Your task to perform on an android device: turn on location history Image 0: 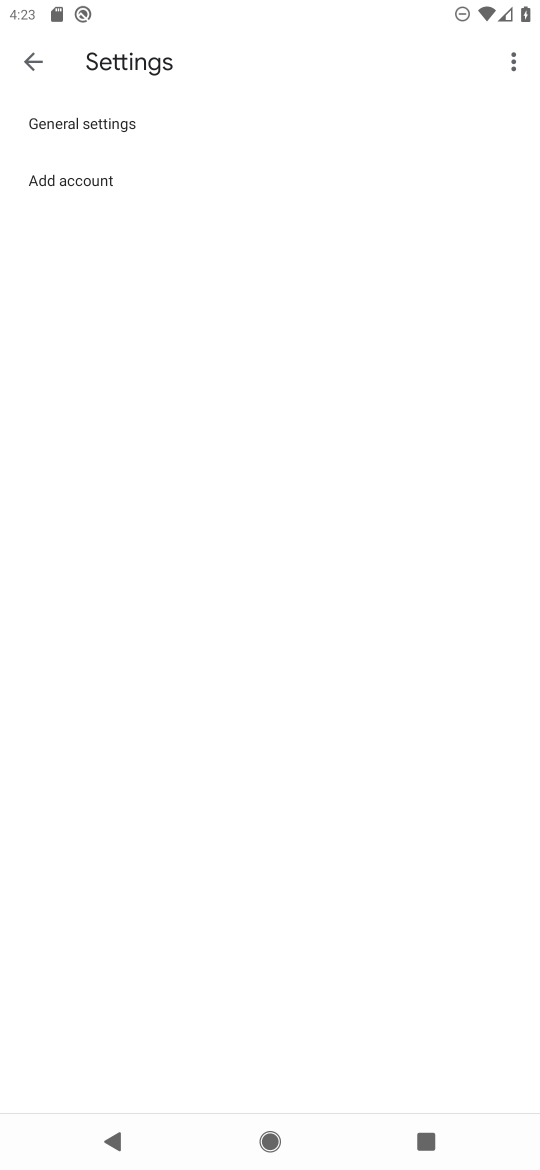
Step 0: press home button
Your task to perform on an android device: turn on location history Image 1: 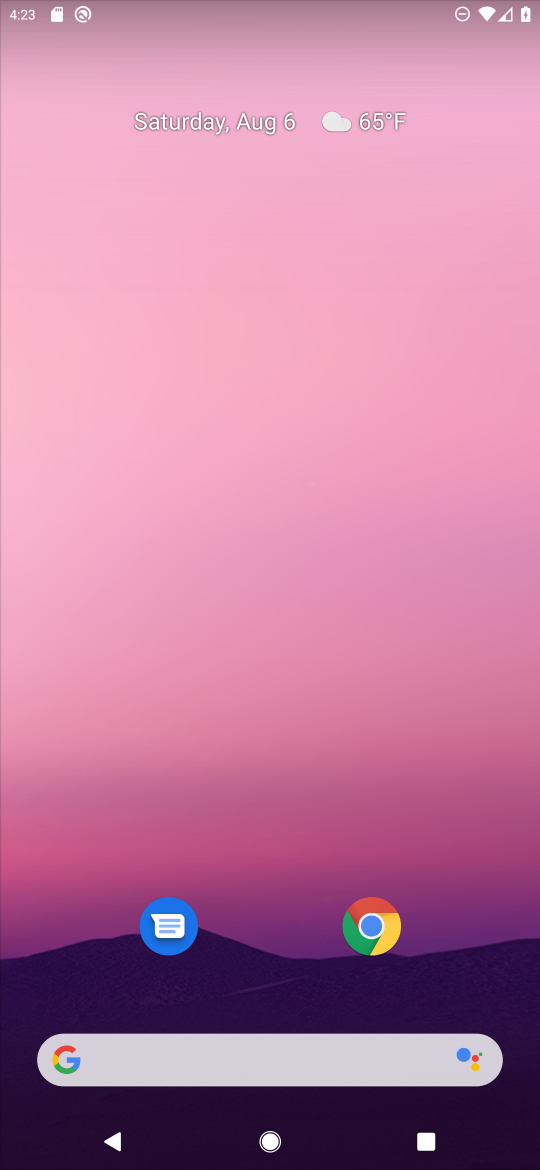
Step 1: drag from (289, 911) to (298, 337)
Your task to perform on an android device: turn on location history Image 2: 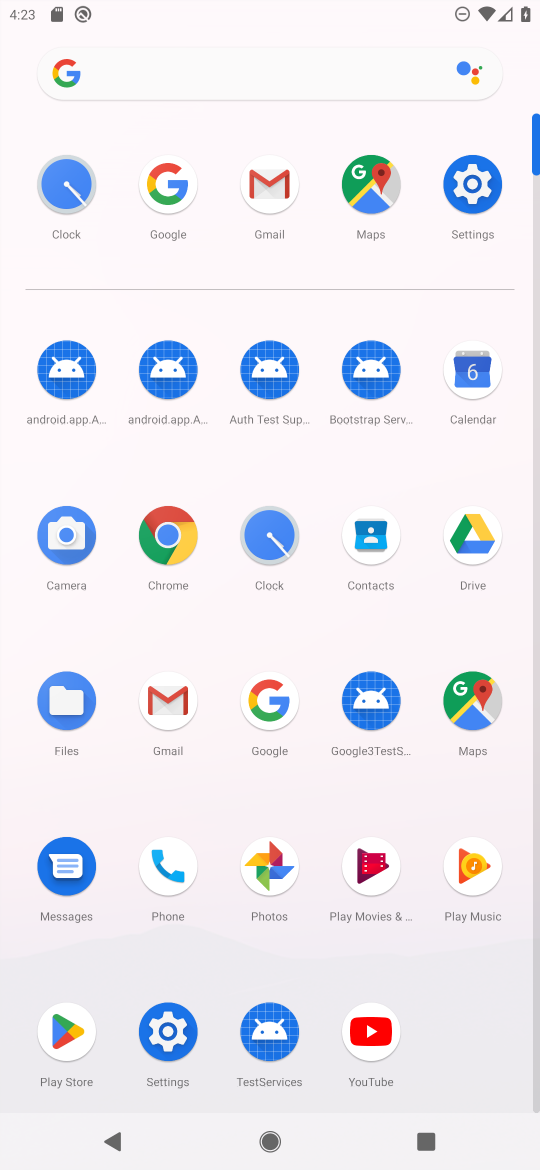
Step 2: click (450, 214)
Your task to perform on an android device: turn on location history Image 3: 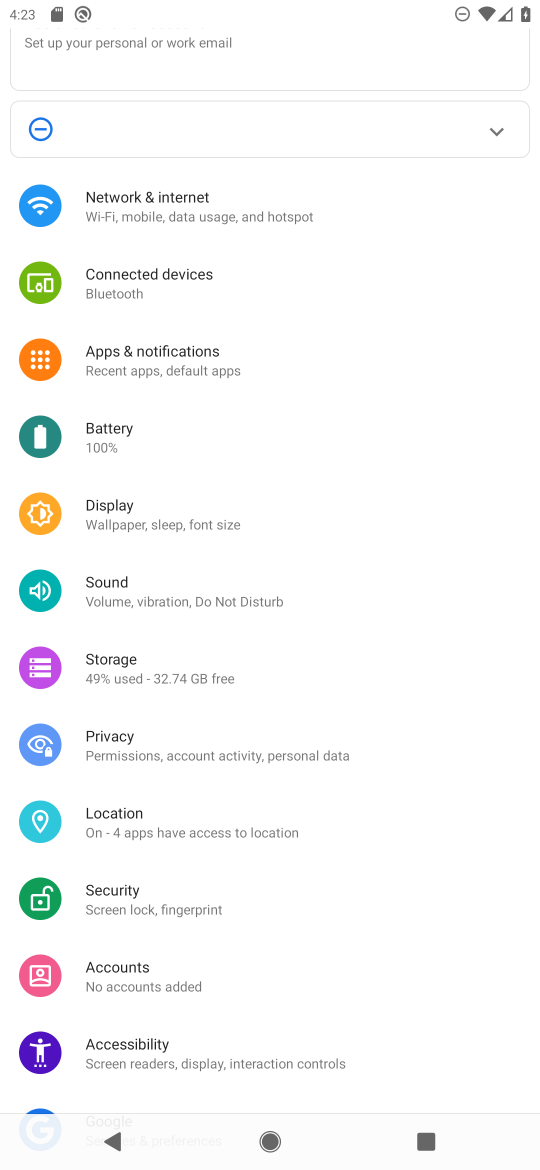
Step 3: click (228, 816)
Your task to perform on an android device: turn on location history Image 4: 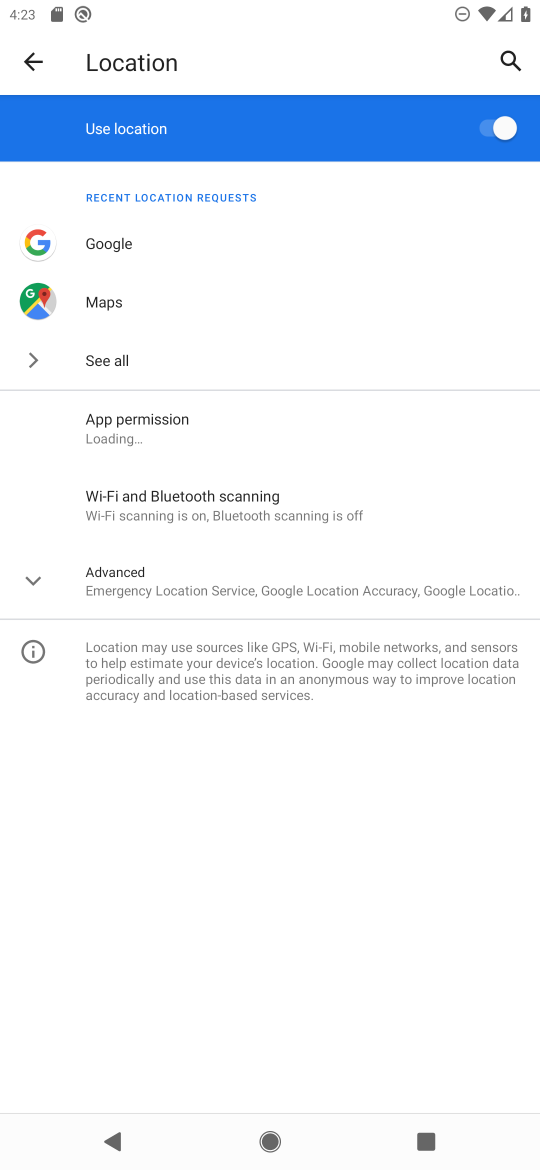
Step 4: click (289, 572)
Your task to perform on an android device: turn on location history Image 5: 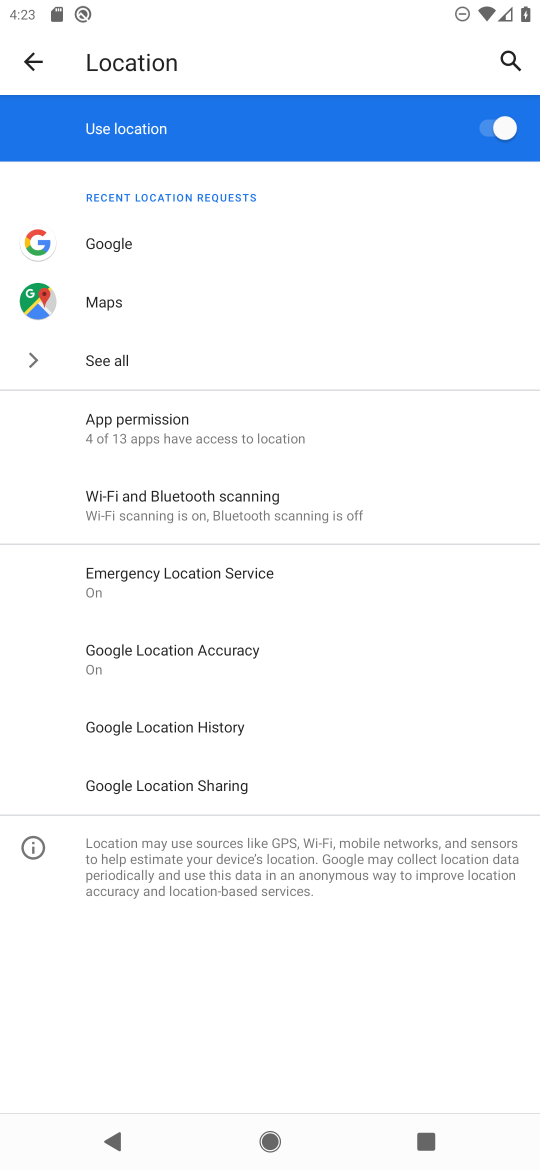
Step 5: click (284, 735)
Your task to perform on an android device: turn on location history Image 6: 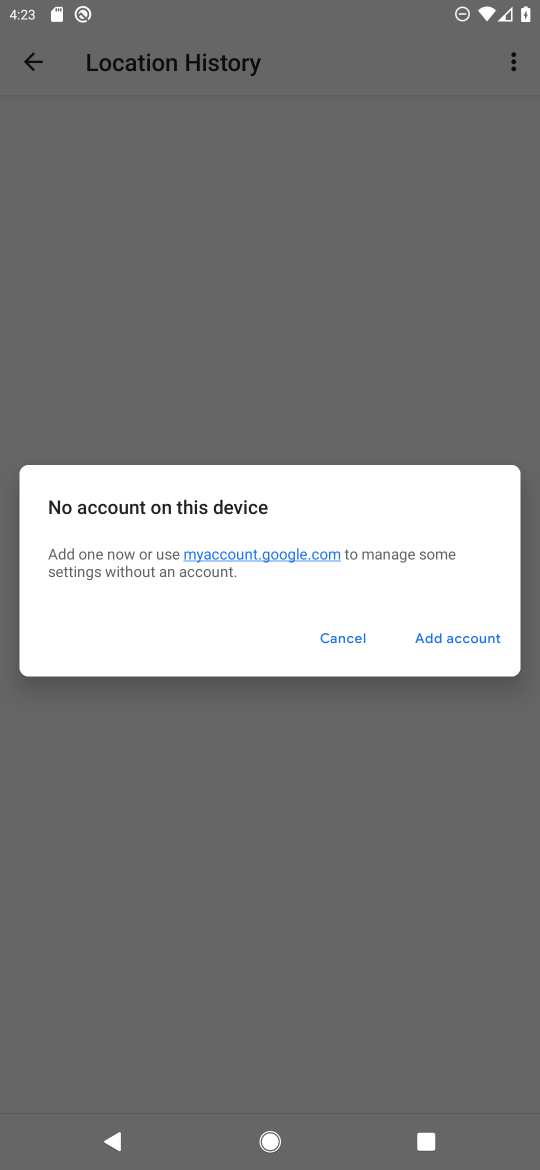
Step 6: click (335, 638)
Your task to perform on an android device: turn on location history Image 7: 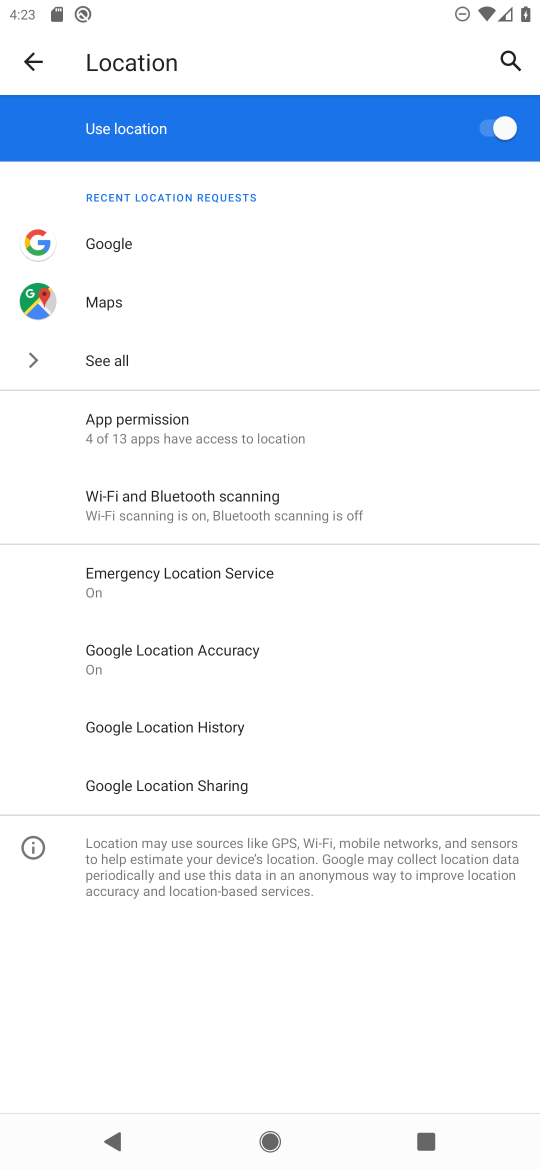
Step 7: click (303, 731)
Your task to perform on an android device: turn on location history Image 8: 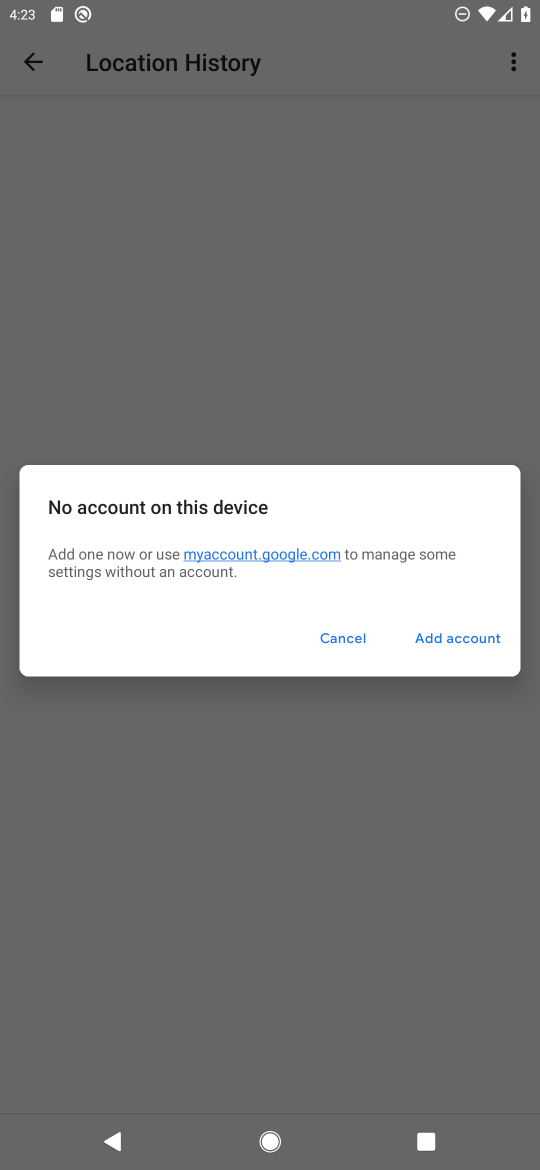
Step 8: task complete